Your task to perform on an android device: turn off notifications in google photos Image 0: 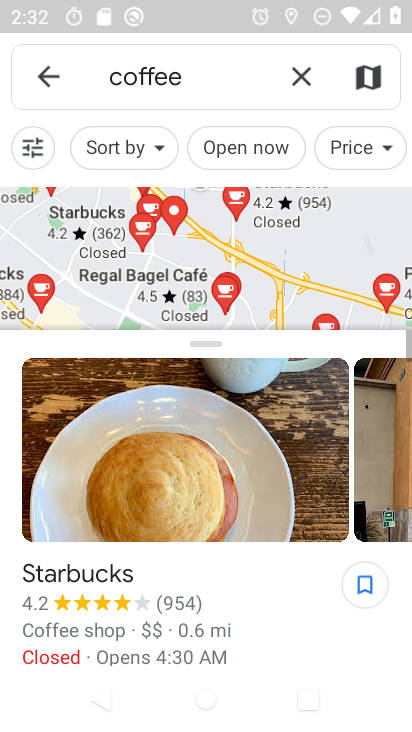
Step 0: drag from (239, 667) to (283, 319)
Your task to perform on an android device: turn off notifications in google photos Image 1: 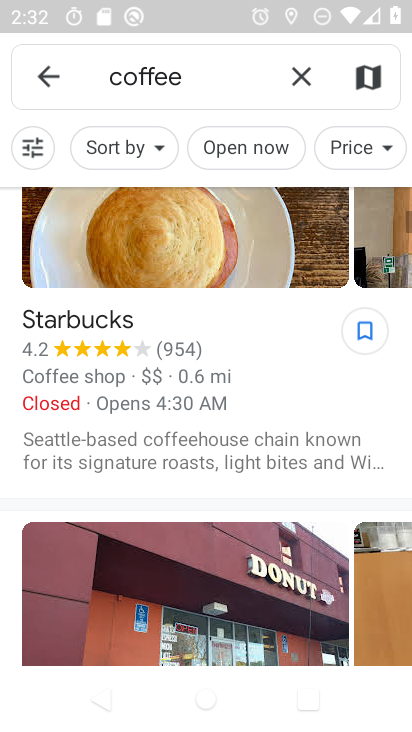
Step 1: press home button
Your task to perform on an android device: turn off notifications in google photos Image 2: 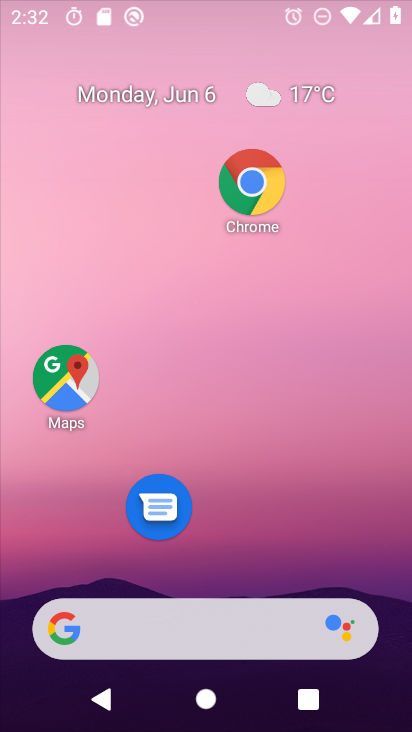
Step 2: drag from (228, 671) to (256, 223)
Your task to perform on an android device: turn off notifications in google photos Image 3: 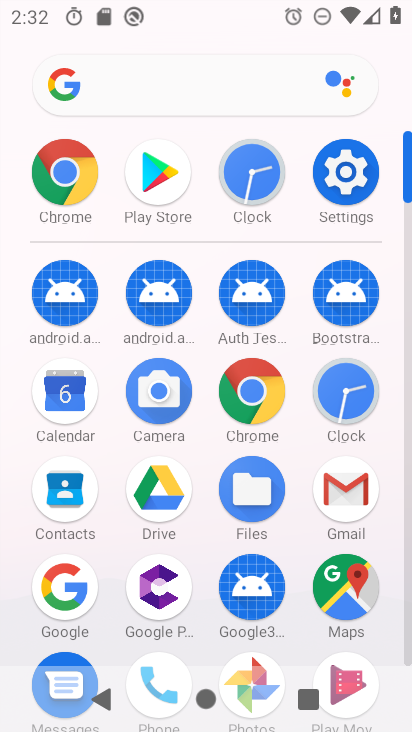
Step 3: click (265, 659)
Your task to perform on an android device: turn off notifications in google photos Image 4: 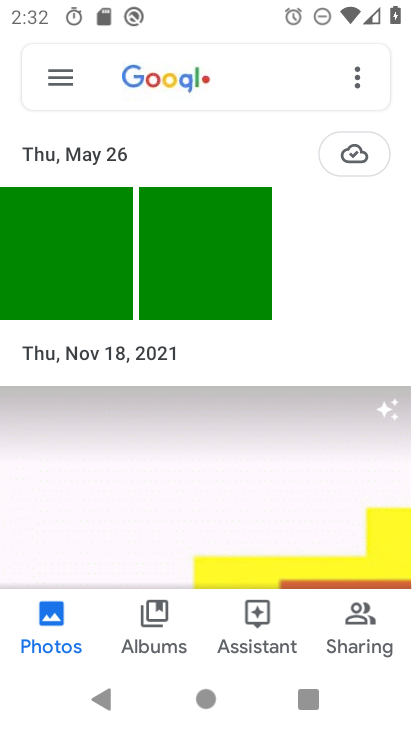
Step 4: click (65, 75)
Your task to perform on an android device: turn off notifications in google photos Image 5: 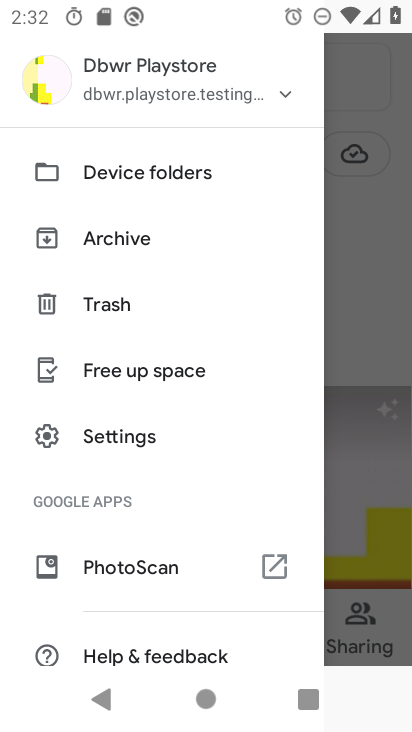
Step 5: click (112, 439)
Your task to perform on an android device: turn off notifications in google photos Image 6: 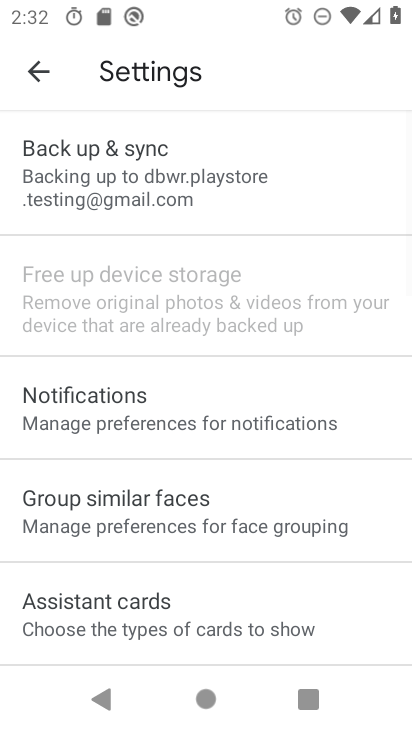
Step 6: click (120, 392)
Your task to perform on an android device: turn off notifications in google photos Image 7: 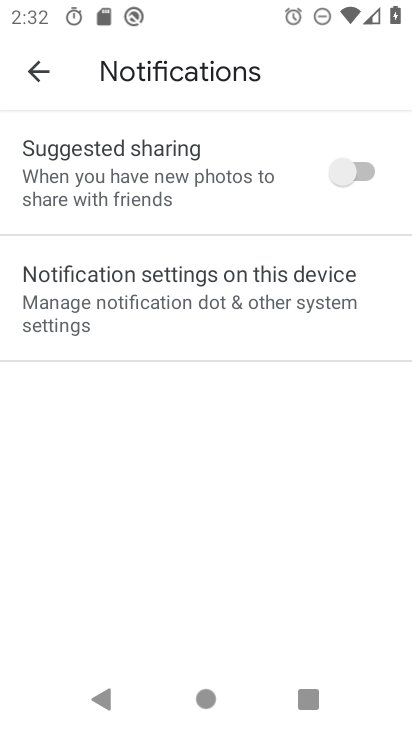
Step 7: click (307, 262)
Your task to perform on an android device: turn off notifications in google photos Image 8: 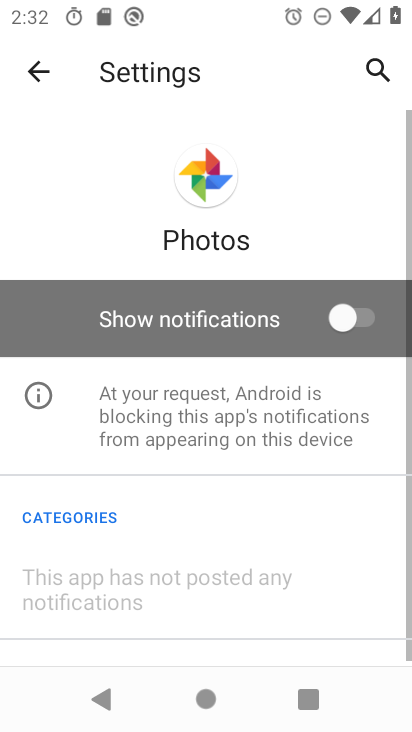
Step 8: click (370, 307)
Your task to perform on an android device: turn off notifications in google photos Image 9: 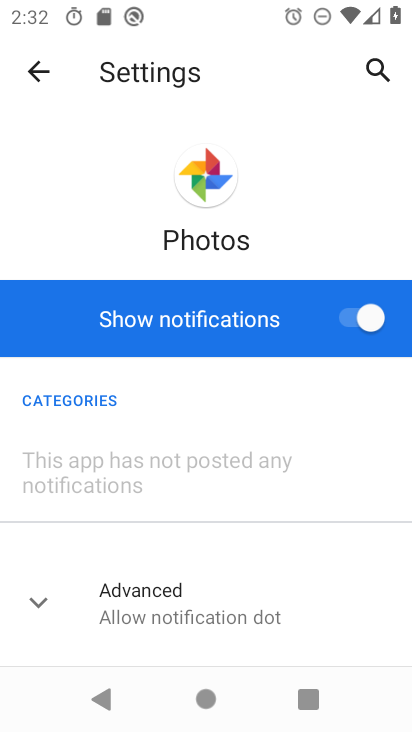
Step 9: click (350, 315)
Your task to perform on an android device: turn off notifications in google photos Image 10: 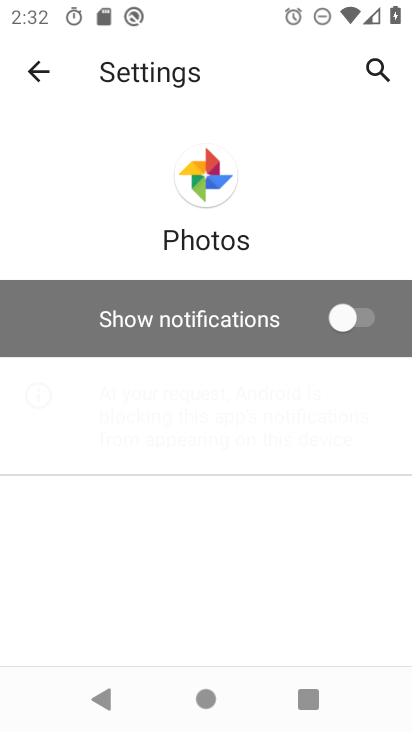
Step 10: task complete